Your task to perform on an android device: change the upload size in google photos Image 0: 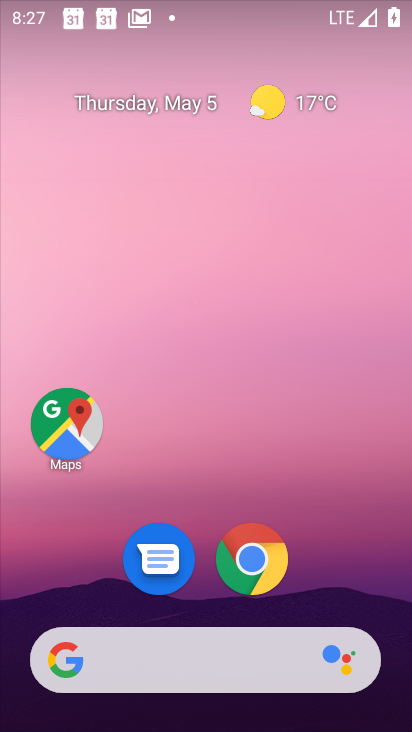
Step 0: drag from (361, 613) to (344, 37)
Your task to perform on an android device: change the upload size in google photos Image 1: 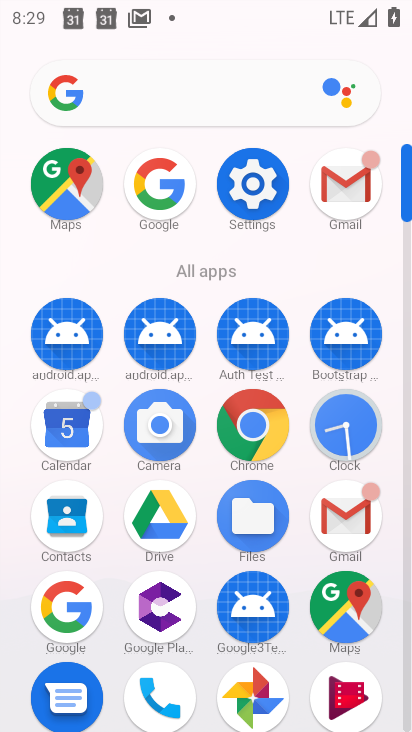
Step 1: click (256, 698)
Your task to perform on an android device: change the upload size in google photos Image 2: 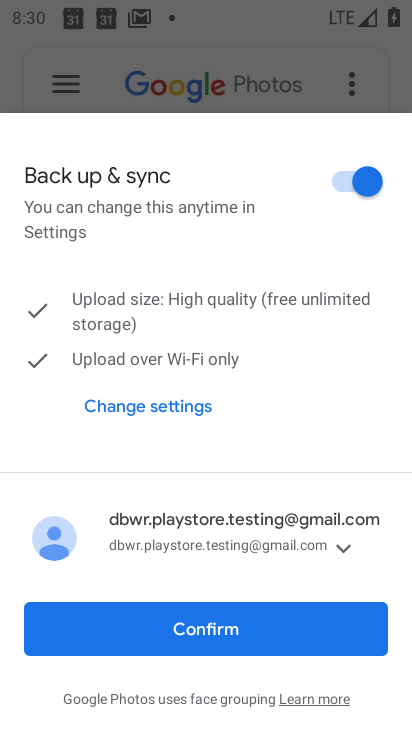
Step 2: click (229, 622)
Your task to perform on an android device: change the upload size in google photos Image 3: 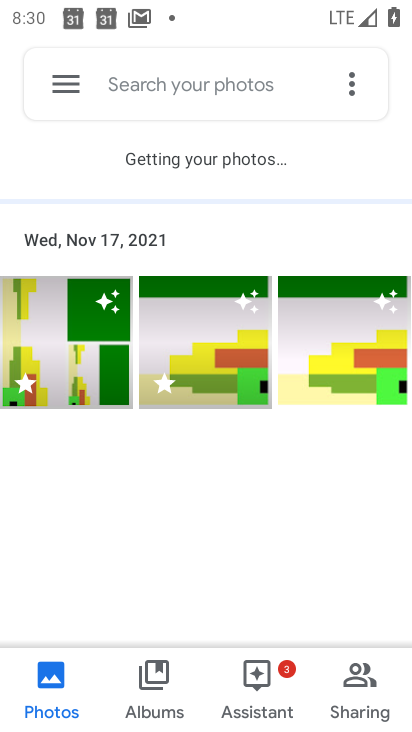
Step 3: click (69, 89)
Your task to perform on an android device: change the upload size in google photos Image 4: 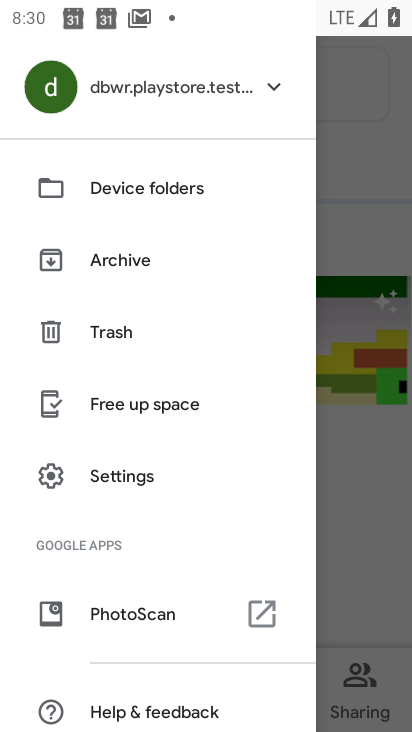
Step 4: click (136, 485)
Your task to perform on an android device: change the upload size in google photos Image 5: 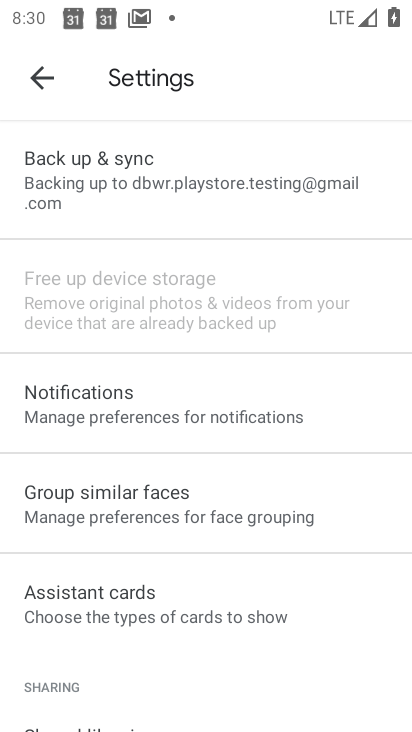
Step 5: click (114, 189)
Your task to perform on an android device: change the upload size in google photos Image 6: 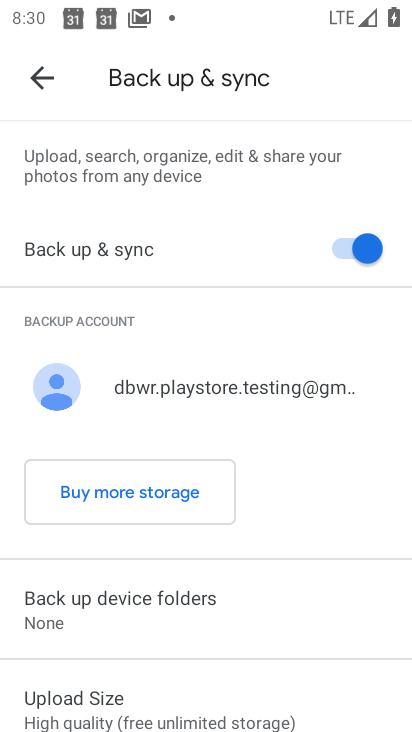
Step 6: drag from (249, 584) to (224, 253)
Your task to perform on an android device: change the upload size in google photos Image 7: 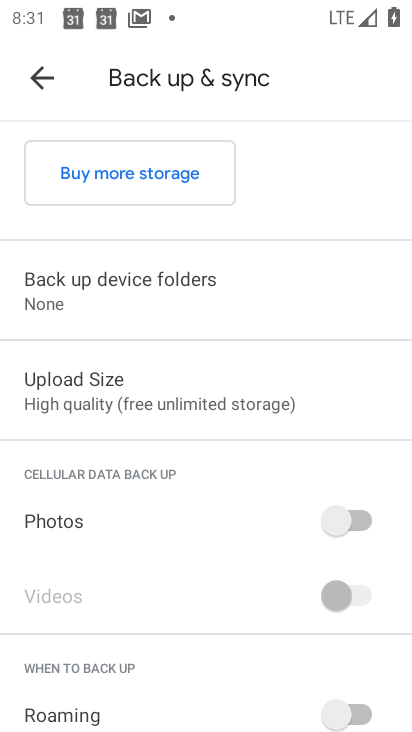
Step 7: click (68, 402)
Your task to perform on an android device: change the upload size in google photos Image 8: 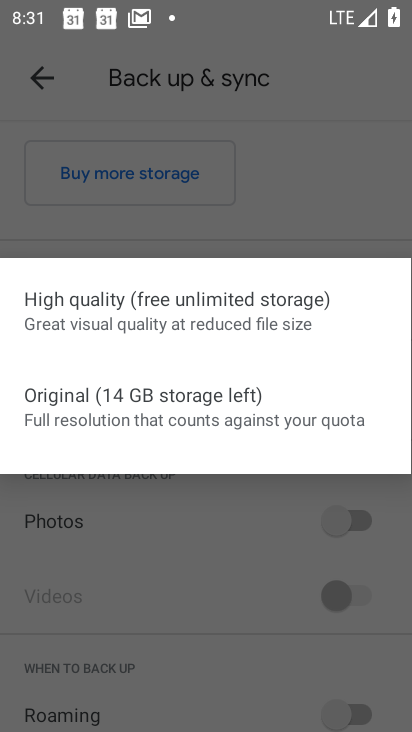
Step 8: click (347, 221)
Your task to perform on an android device: change the upload size in google photos Image 9: 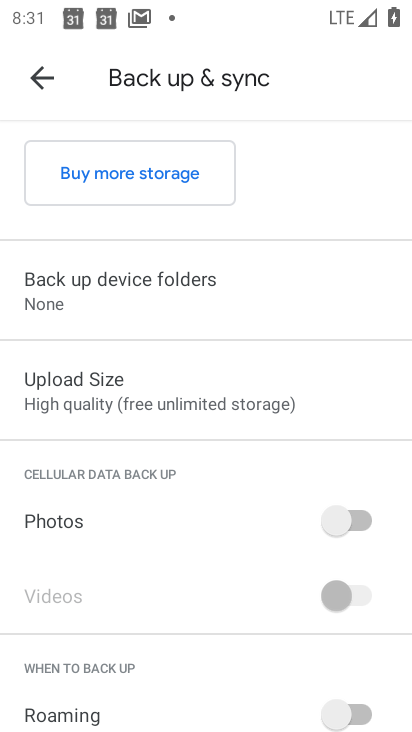
Step 9: click (115, 404)
Your task to perform on an android device: change the upload size in google photos Image 10: 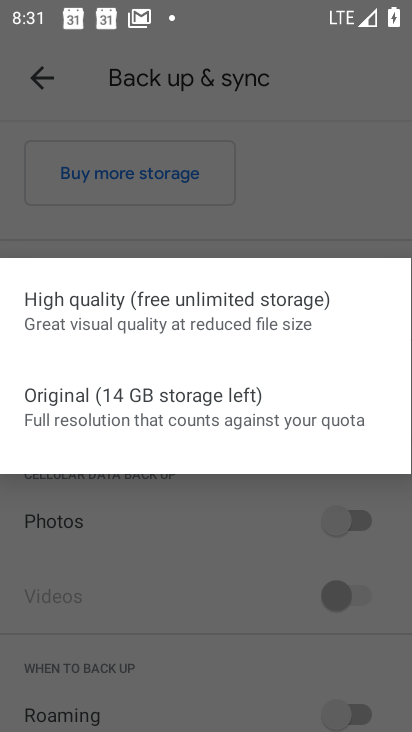
Step 10: click (66, 408)
Your task to perform on an android device: change the upload size in google photos Image 11: 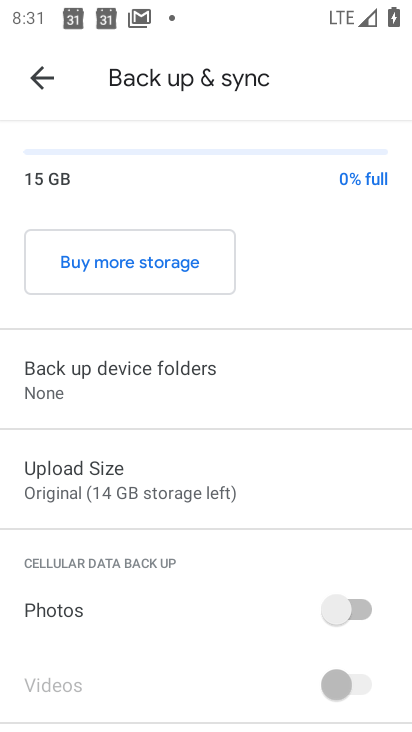
Step 11: task complete